Your task to perform on an android device: open wifi settings Image 0: 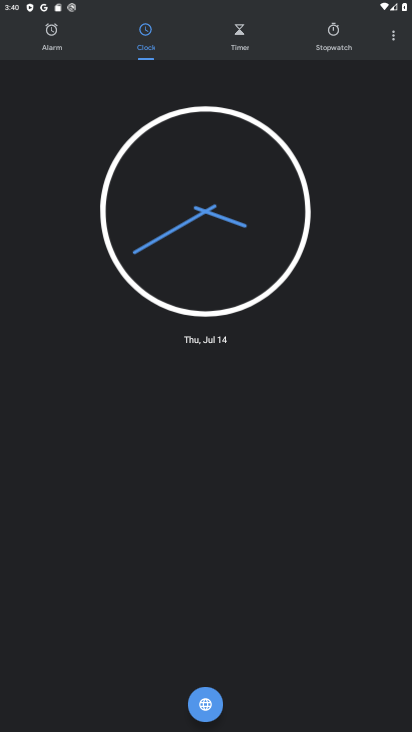
Step 0: press home button
Your task to perform on an android device: open wifi settings Image 1: 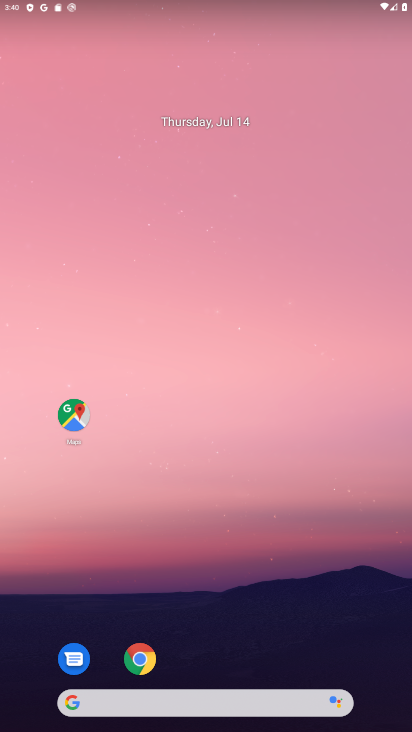
Step 1: drag from (334, 615) to (370, 149)
Your task to perform on an android device: open wifi settings Image 2: 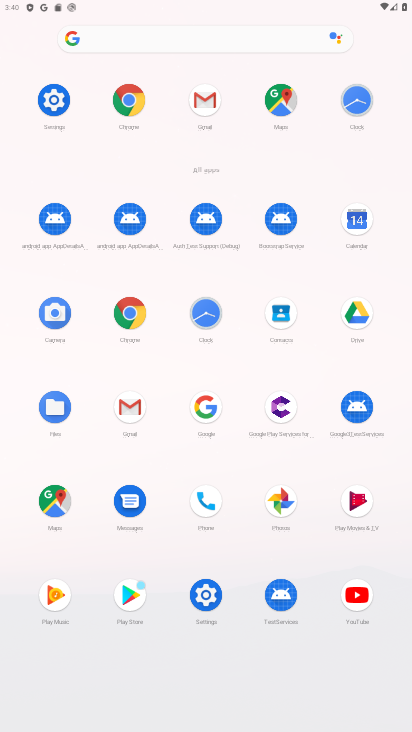
Step 2: click (52, 109)
Your task to perform on an android device: open wifi settings Image 3: 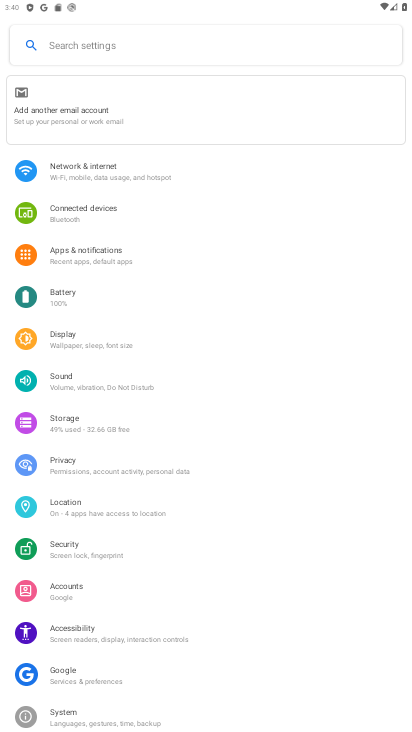
Step 3: click (89, 166)
Your task to perform on an android device: open wifi settings Image 4: 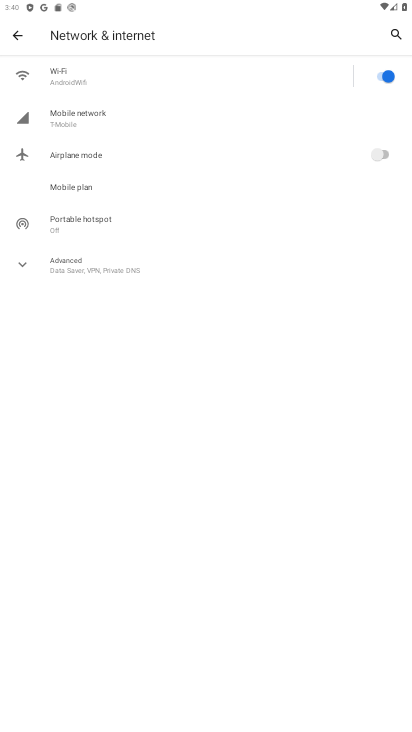
Step 4: click (121, 73)
Your task to perform on an android device: open wifi settings Image 5: 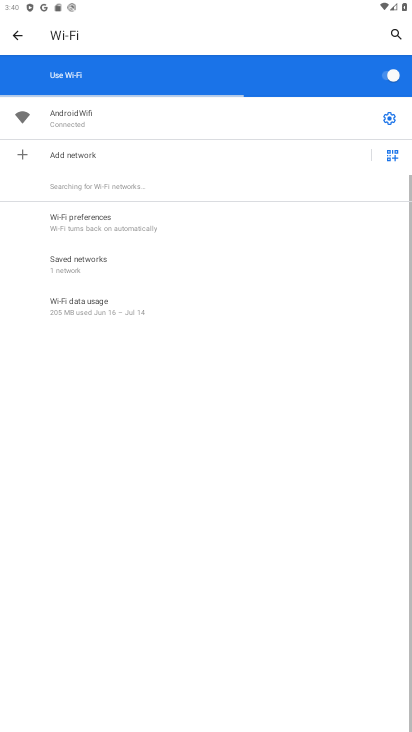
Step 5: task complete